Your task to perform on an android device: Open network settings Image 0: 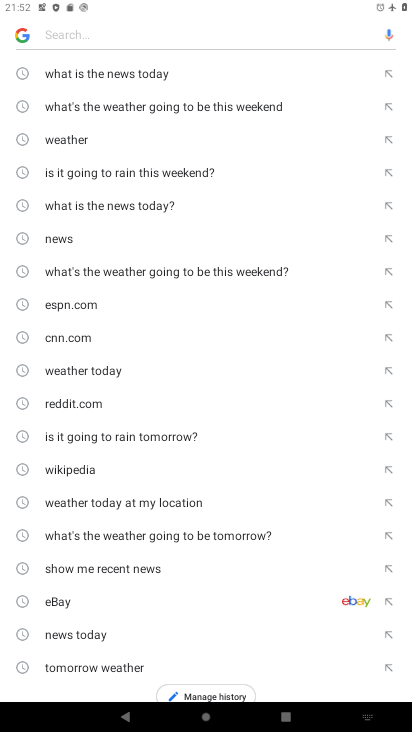
Step 0: press home button
Your task to perform on an android device: Open network settings Image 1: 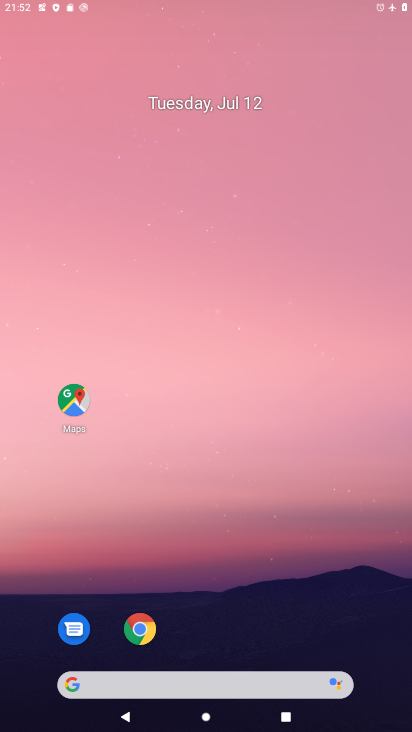
Step 1: drag from (194, 570) to (193, 139)
Your task to perform on an android device: Open network settings Image 2: 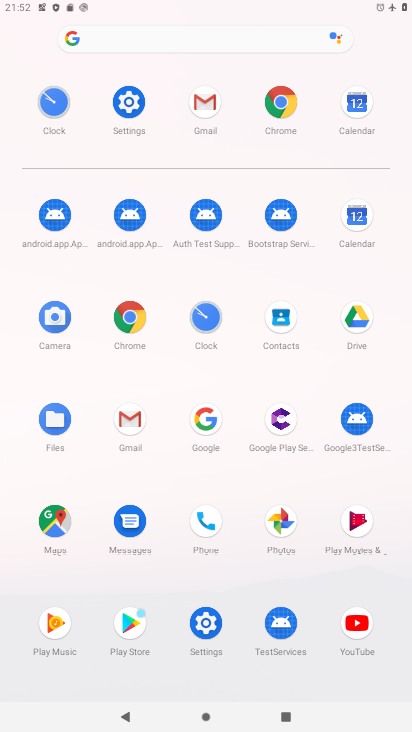
Step 2: click (125, 84)
Your task to perform on an android device: Open network settings Image 3: 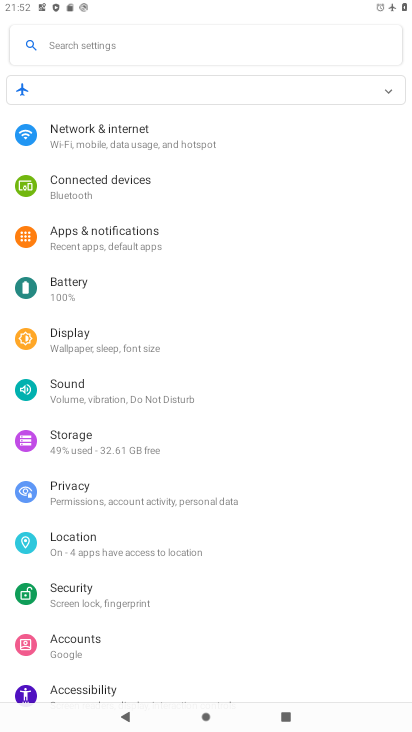
Step 3: click (101, 134)
Your task to perform on an android device: Open network settings Image 4: 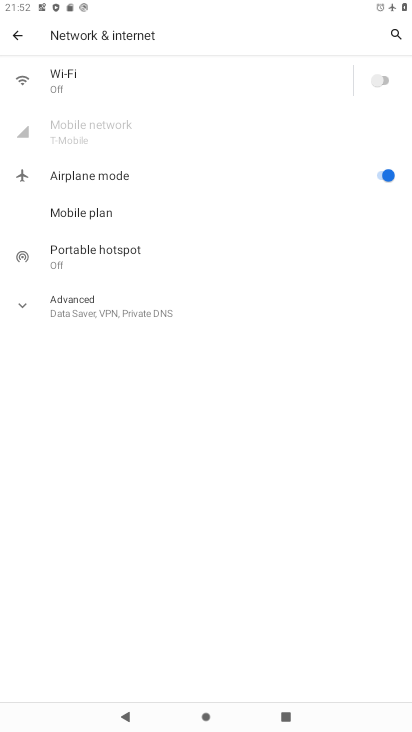
Step 4: task complete